Your task to perform on an android device: What is the news today? Image 0: 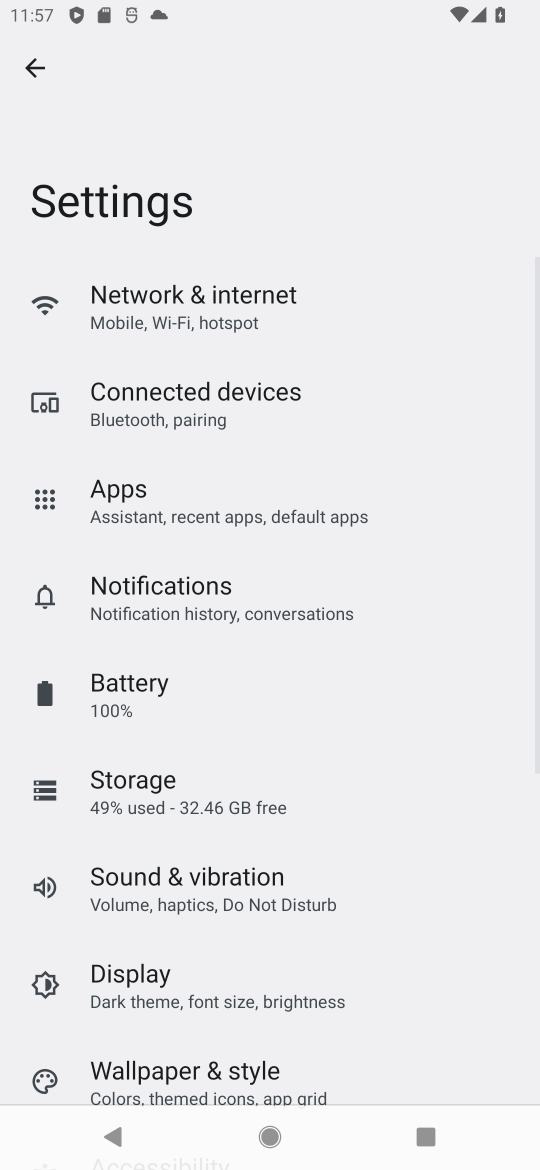
Step 0: press home button
Your task to perform on an android device: What is the news today? Image 1: 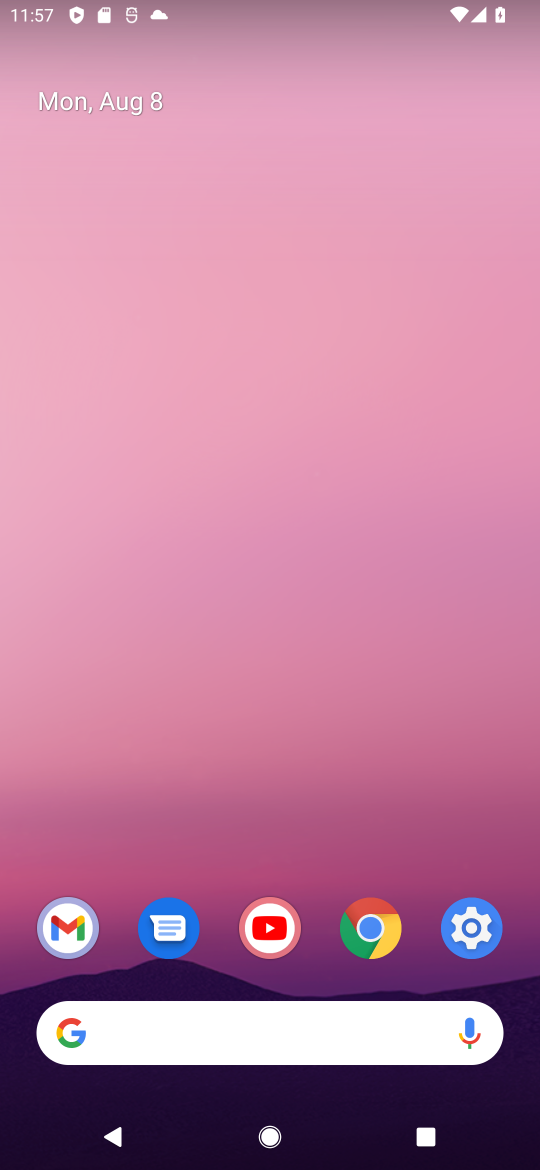
Step 1: click (277, 1043)
Your task to perform on an android device: What is the news today? Image 2: 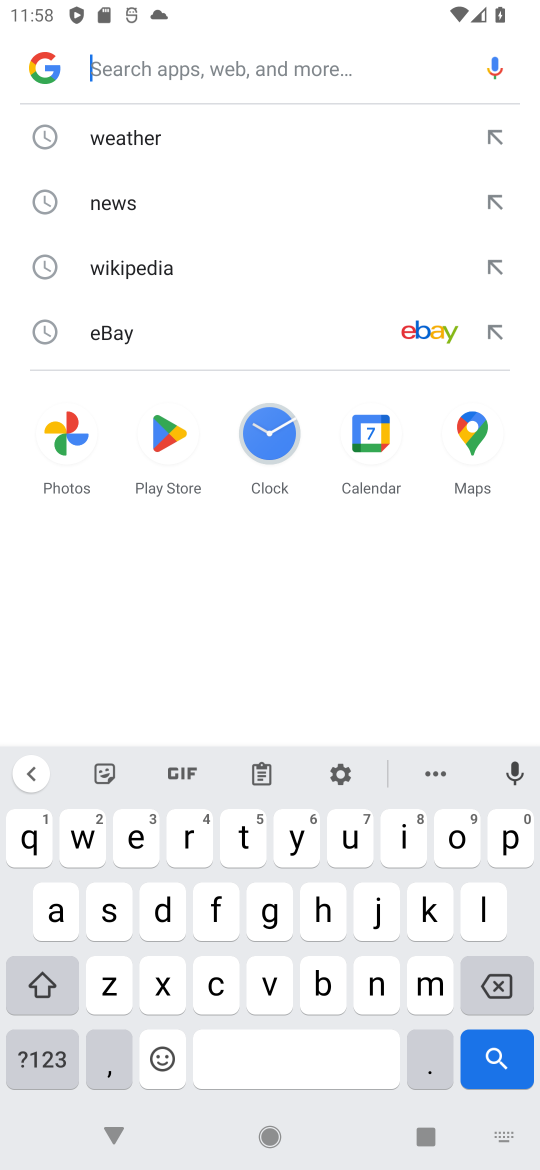
Step 2: click (150, 206)
Your task to perform on an android device: What is the news today? Image 3: 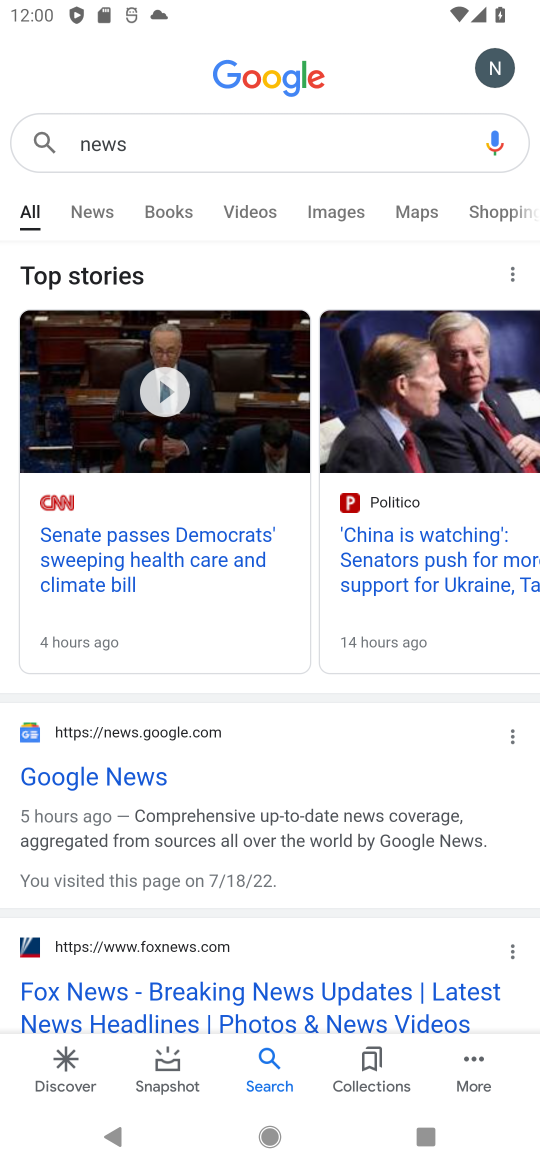
Step 3: task complete